Your task to perform on an android device: Go to settings Image 0: 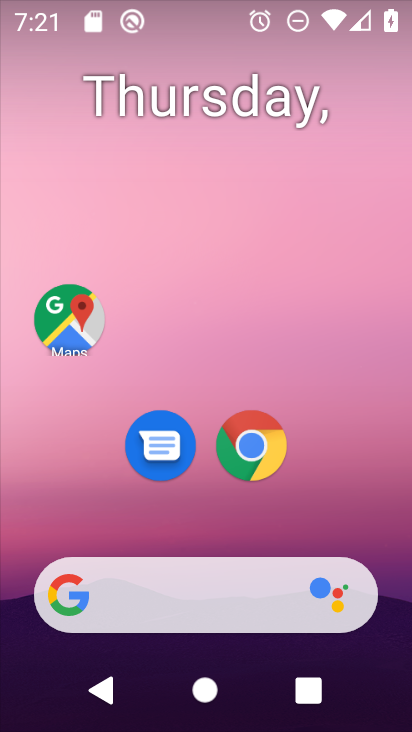
Step 0: drag from (340, 480) to (269, 13)
Your task to perform on an android device: Go to settings Image 1: 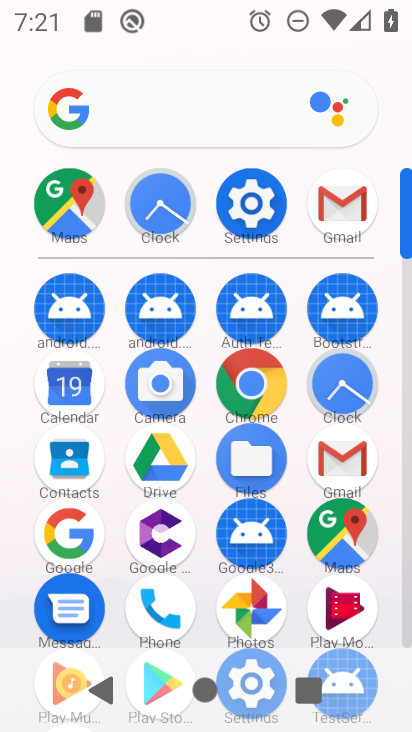
Step 1: click (246, 201)
Your task to perform on an android device: Go to settings Image 2: 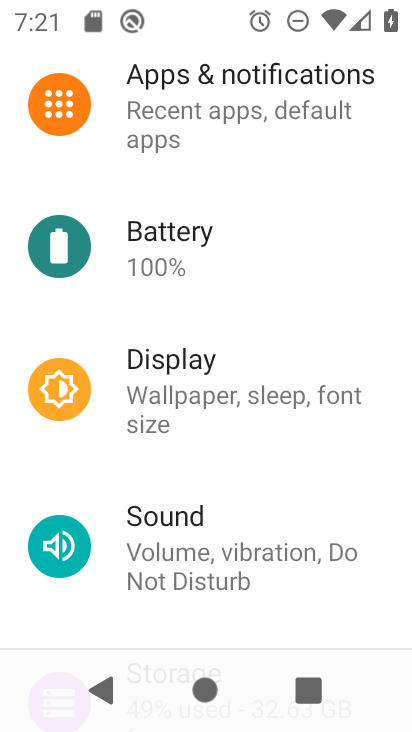
Step 2: task complete